Your task to perform on an android device: Open calendar and show me the first week of next month Image 0: 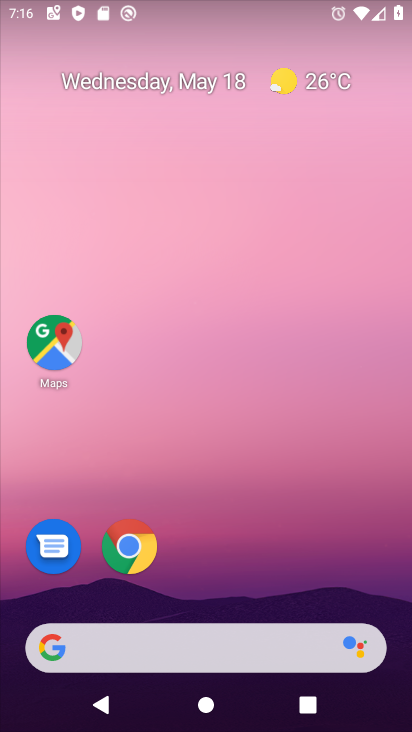
Step 0: drag from (382, 617) to (314, 38)
Your task to perform on an android device: Open calendar and show me the first week of next month Image 1: 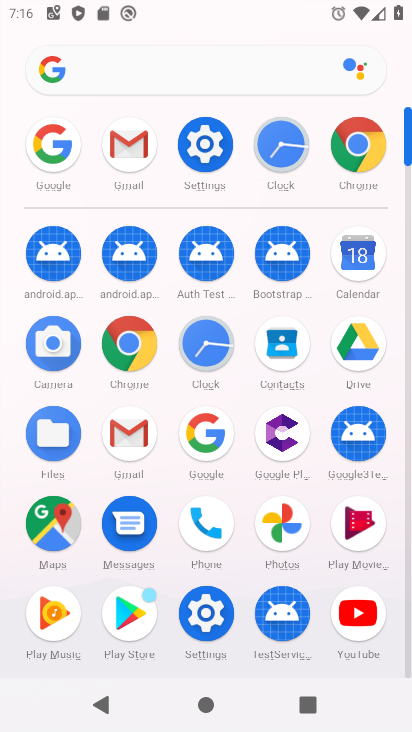
Step 1: click (356, 277)
Your task to perform on an android device: Open calendar and show me the first week of next month Image 2: 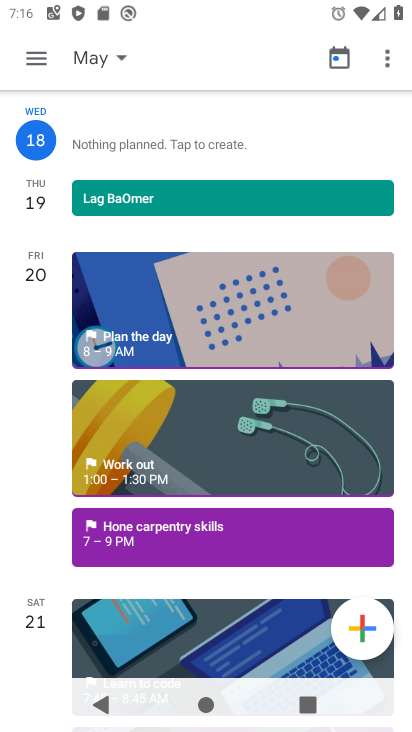
Step 2: click (87, 62)
Your task to perform on an android device: Open calendar and show me the first week of next month Image 3: 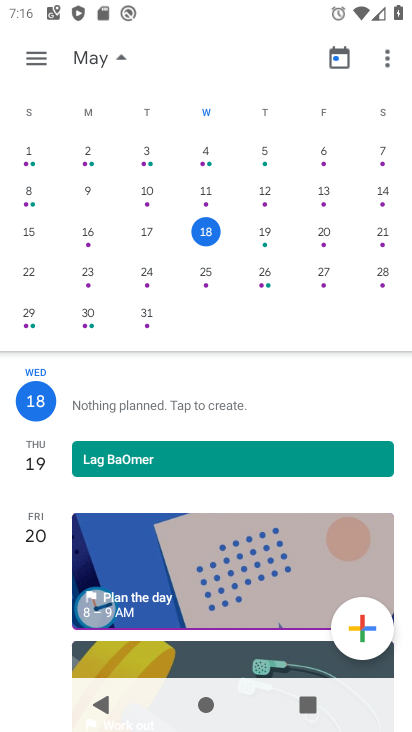
Step 3: drag from (381, 270) to (8, 251)
Your task to perform on an android device: Open calendar and show me the first week of next month Image 4: 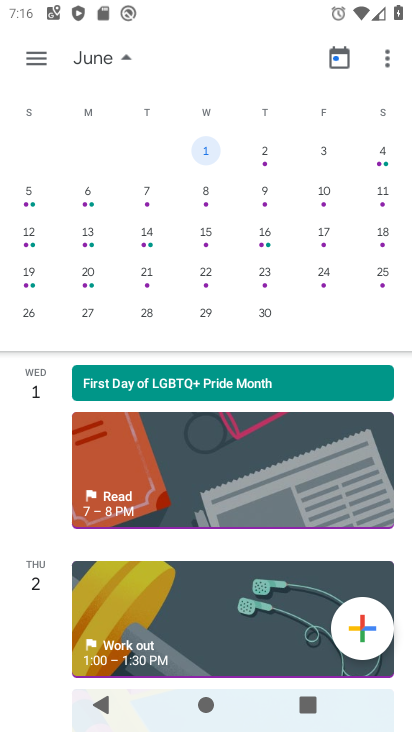
Step 4: click (79, 190)
Your task to perform on an android device: Open calendar and show me the first week of next month Image 5: 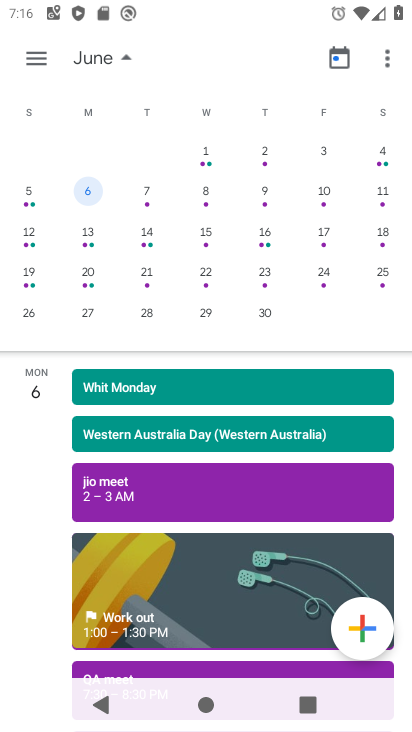
Step 5: task complete